Your task to perform on an android device: empty trash in google photos Image 0: 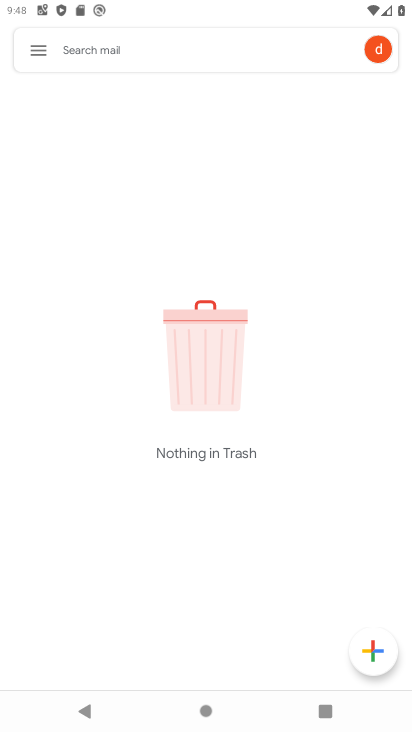
Step 0: press home button
Your task to perform on an android device: empty trash in google photos Image 1: 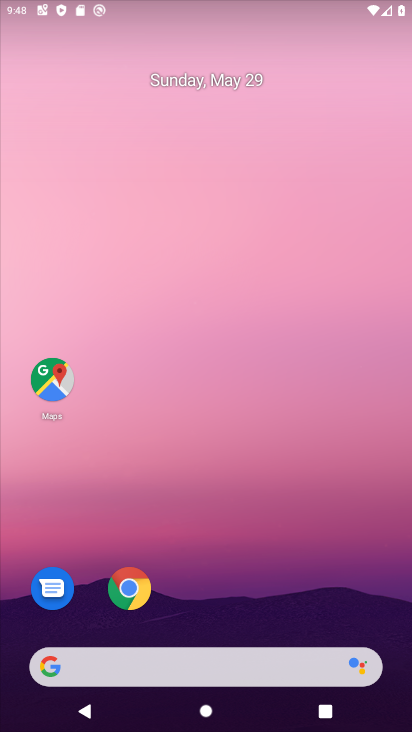
Step 1: drag from (233, 617) to (231, 195)
Your task to perform on an android device: empty trash in google photos Image 2: 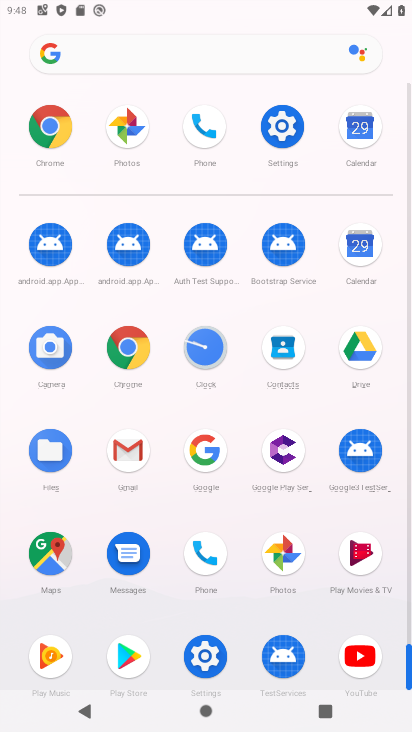
Step 2: click (275, 562)
Your task to perform on an android device: empty trash in google photos Image 3: 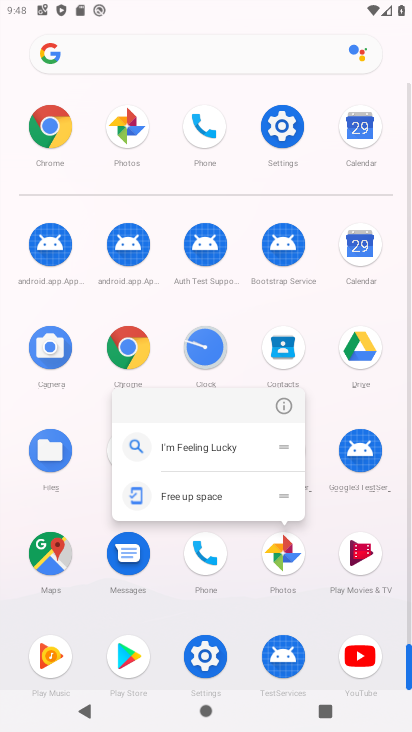
Step 3: click (277, 559)
Your task to perform on an android device: empty trash in google photos Image 4: 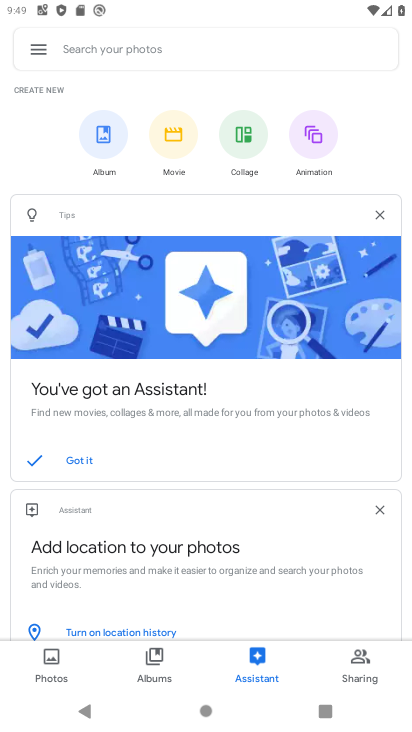
Step 4: click (39, 63)
Your task to perform on an android device: empty trash in google photos Image 5: 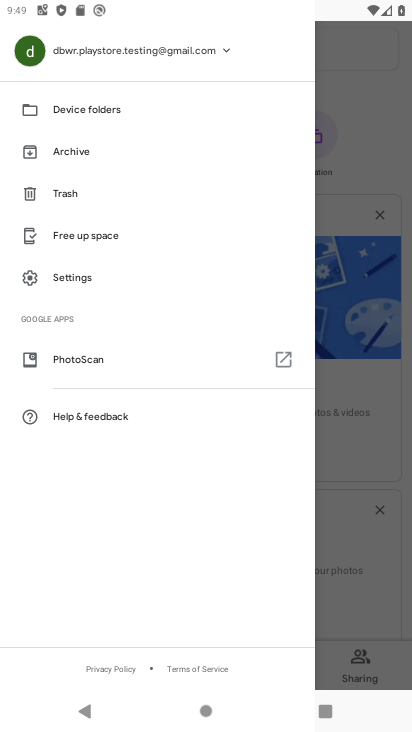
Step 5: click (97, 190)
Your task to perform on an android device: empty trash in google photos Image 6: 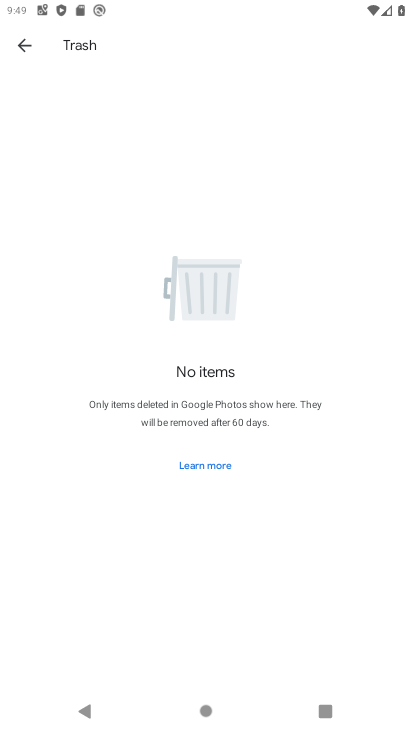
Step 6: task complete